Your task to perform on an android device: Search for seafood restaurants on Google Maps Image 0: 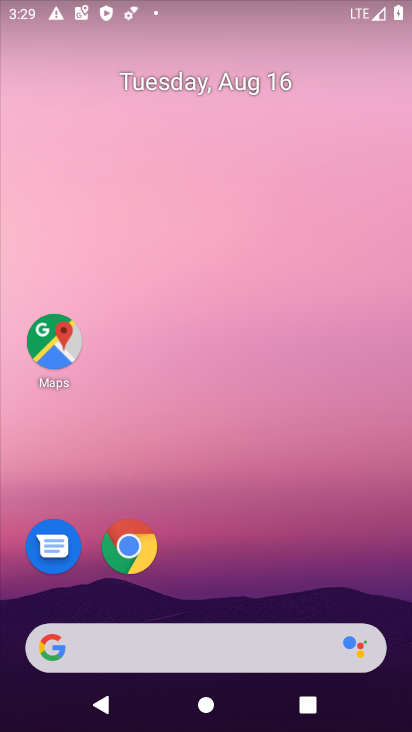
Step 0: press home button
Your task to perform on an android device: Search for seafood restaurants on Google Maps Image 1: 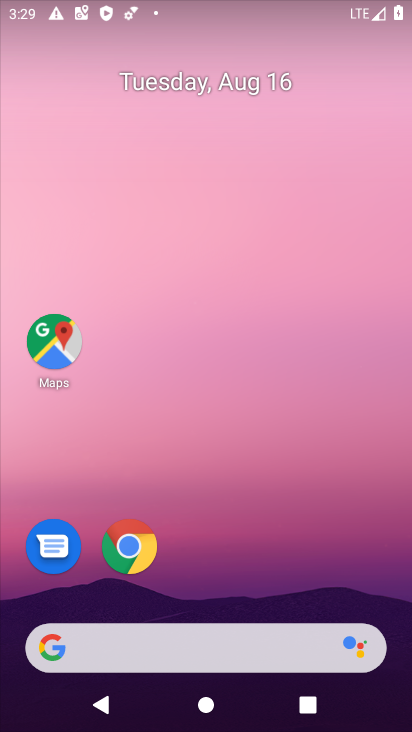
Step 1: drag from (289, 527) to (310, 147)
Your task to perform on an android device: Search for seafood restaurants on Google Maps Image 2: 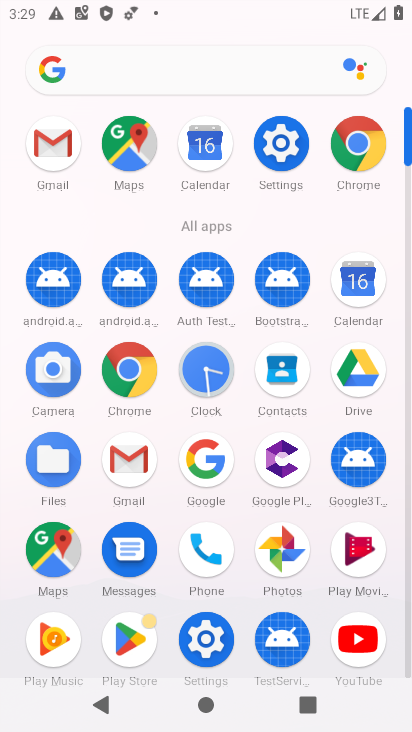
Step 2: click (133, 148)
Your task to perform on an android device: Search for seafood restaurants on Google Maps Image 3: 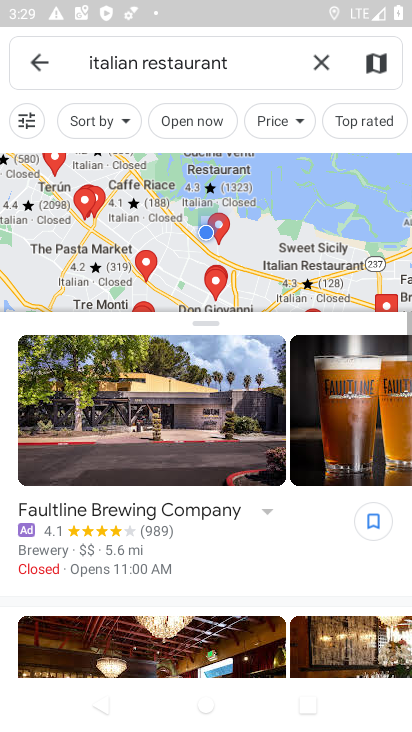
Step 3: press back button
Your task to perform on an android device: Search for seafood restaurants on Google Maps Image 4: 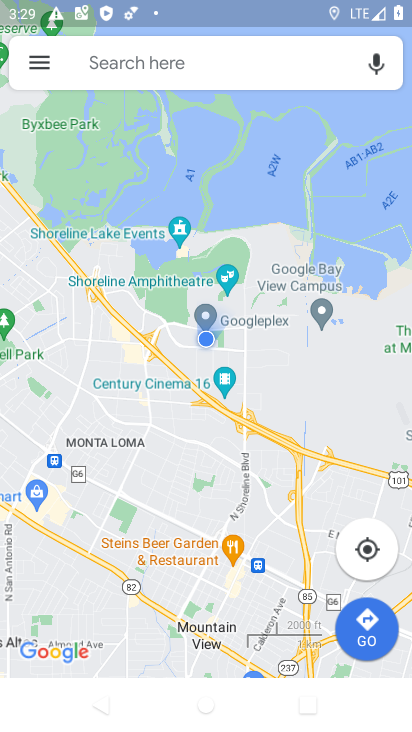
Step 4: click (185, 61)
Your task to perform on an android device: Search for seafood restaurants on Google Maps Image 5: 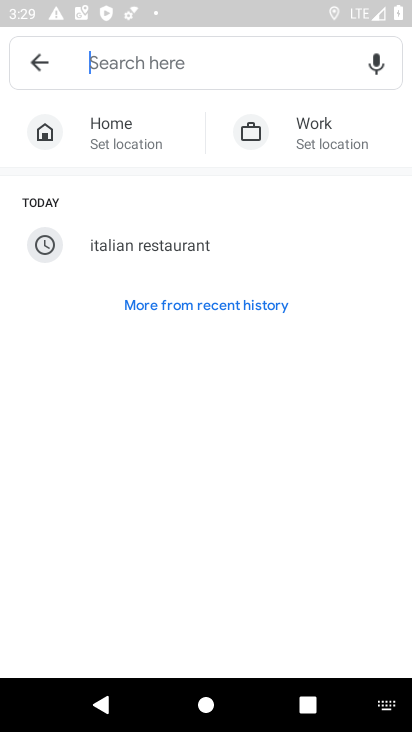
Step 5: type "seafood restaurants"
Your task to perform on an android device: Search for seafood restaurants on Google Maps Image 6: 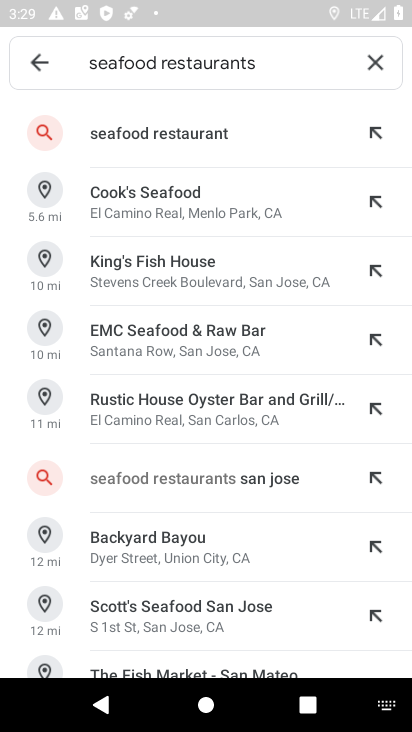
Step 6: click (152, 131)
Your task to perform on an android device: Search for seafood restaurants on Google Maps Image 7: 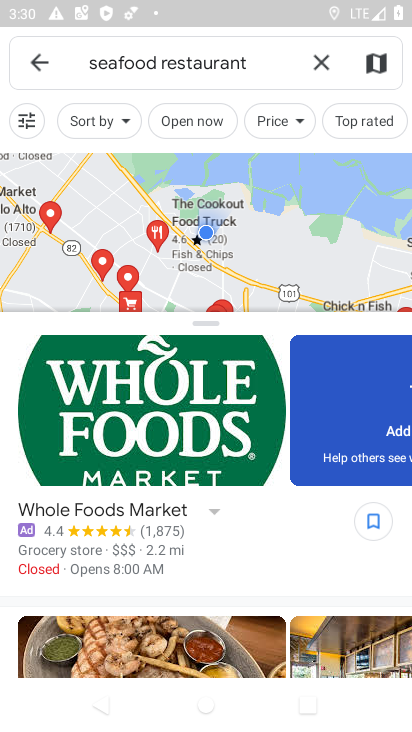
Step 7: task complete